Your task to perform on an android device: install app "Nova Launcher" Image 0: 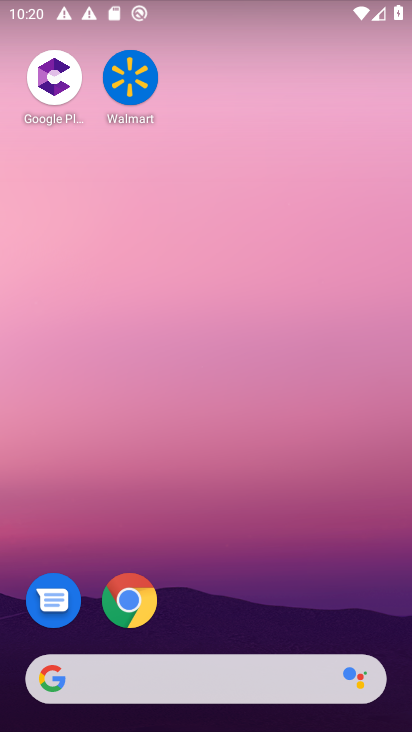
Step 0: drag from (212, 624) to (280, 8)
Your task to perform on an android device: install app "Nova Launcher" Image 1: 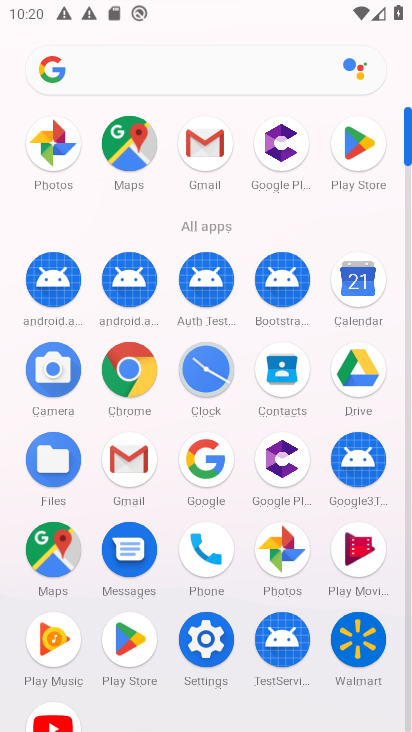
Step 1: click (118, 646)
Your task to perform on an android device: install app "Nova Launcher" Image 2: 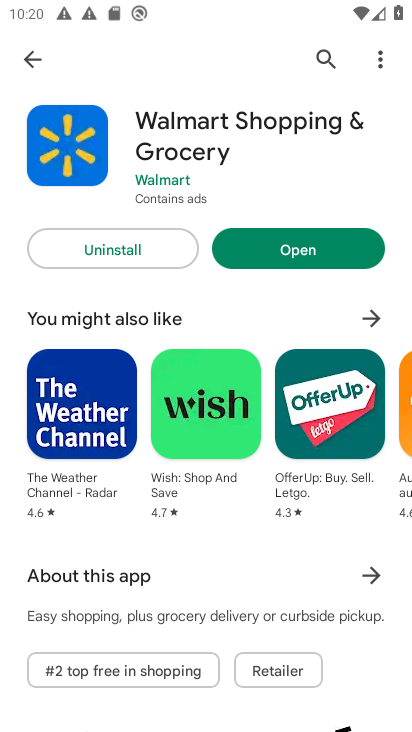
Step 2: click (26, 60)
Your task to perform on an android device: install app "Nova Launcher" Image 3: 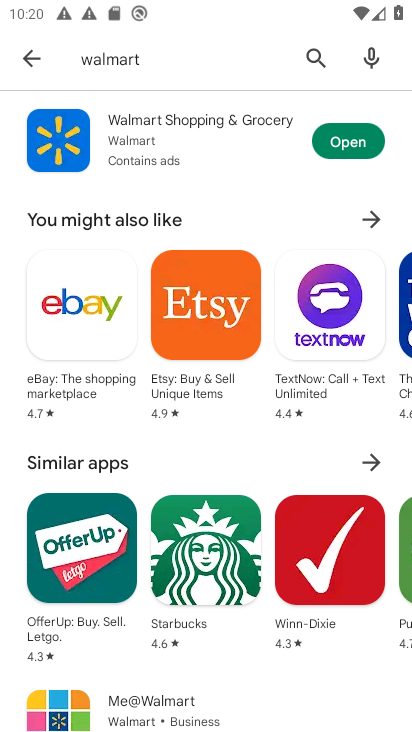
Step 3: click (175, 70)
Your task to perform on an android device: install app "Nova Launcher" Image 4: 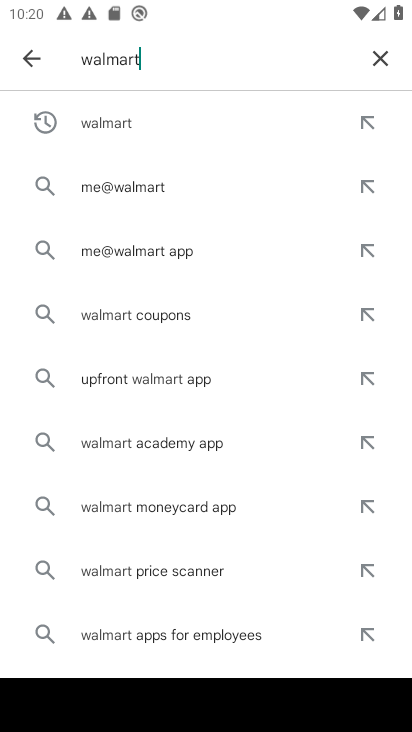
Step 4: click (379, 54)
Your task to perform on an android device: install app "Nova Launcher" Image 5: 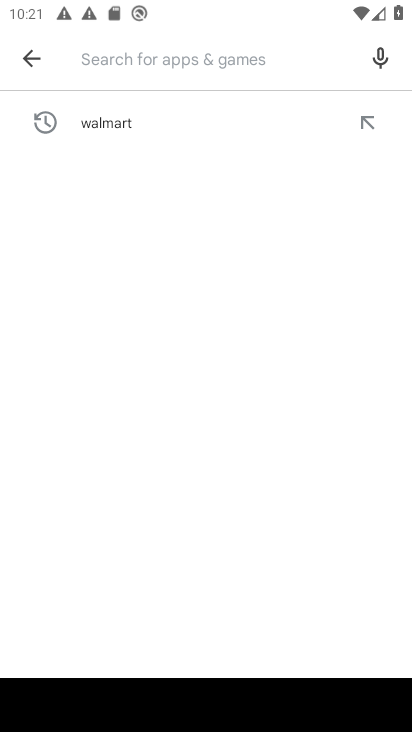
Step 5: type "Nova launcher"
Your task to perform on an android device: install app "Nova Launcher" Image 6: 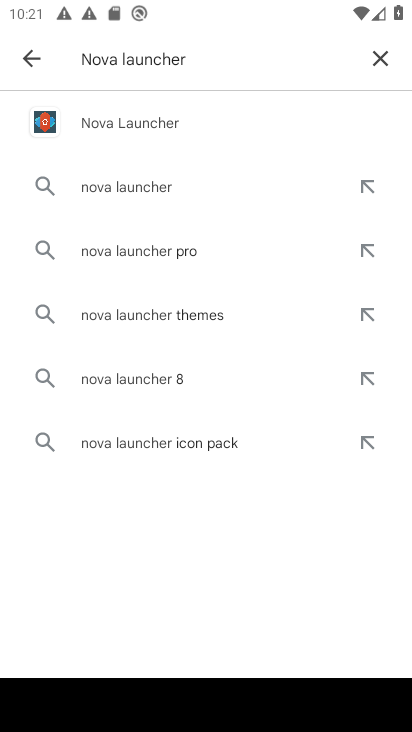
Step 6: click (185, 140)
Your task to perform on an android device: install app "Nova Launcher" Image 7: 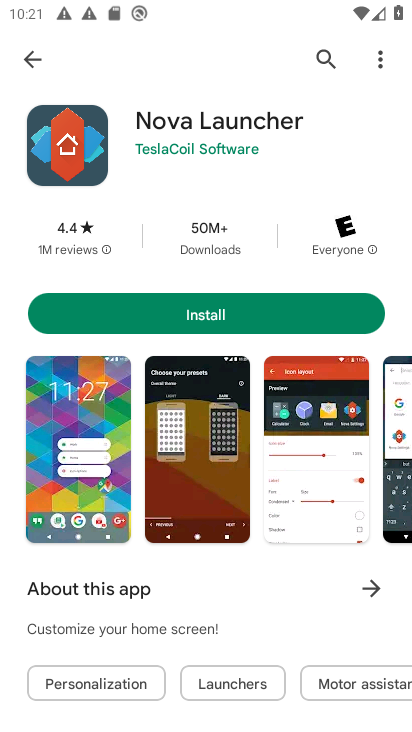
Step 7: click (276, 323)
Your task to perform on an android device: install app "Nova Launcher" Image 8: 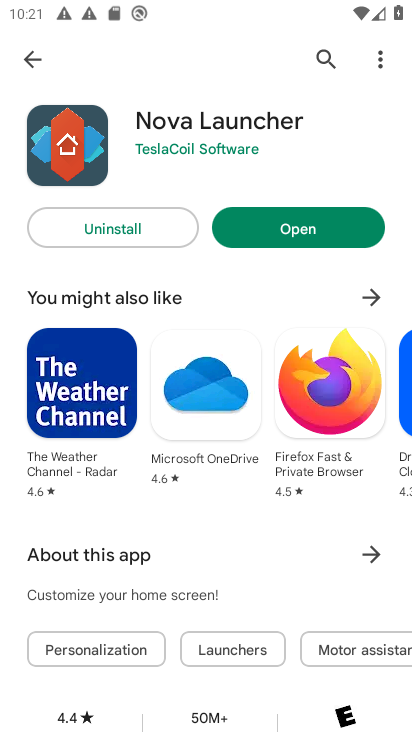
Step 8: task complete